Your task to perform on an android device: open a new tab in the chrome app Image 0: 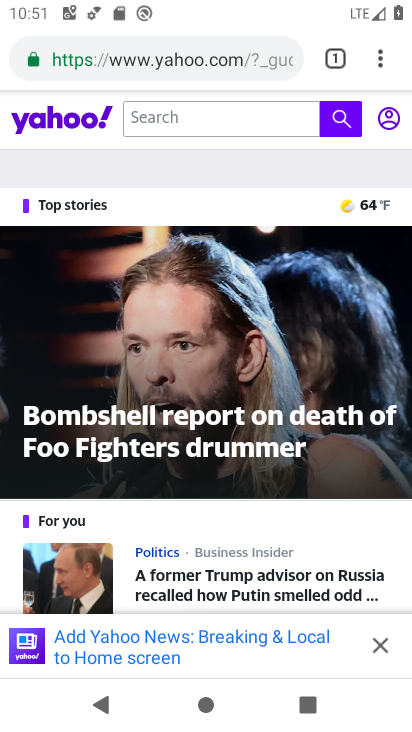
Step 0: click (377, 64)
Your task to perform on an android device: open a new tab in the chrome app Image 1: 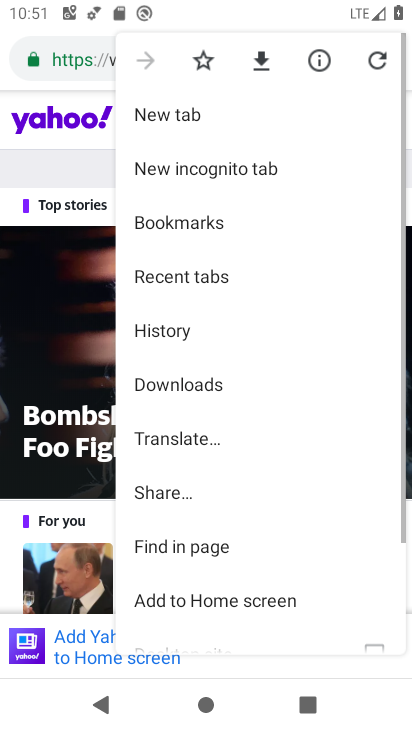
Step 1: click (170, 118)
Your task to perform on an android device: open a new tab in the chrome app Image 2: 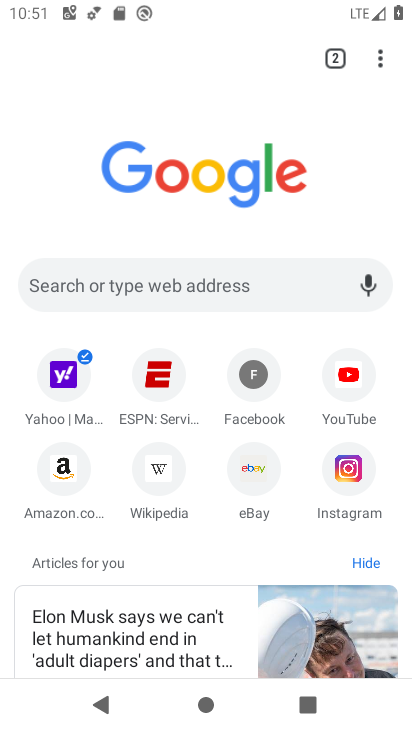
Step 2: task complete